Your task to perform on an android device: What is the recent news? Image 0: 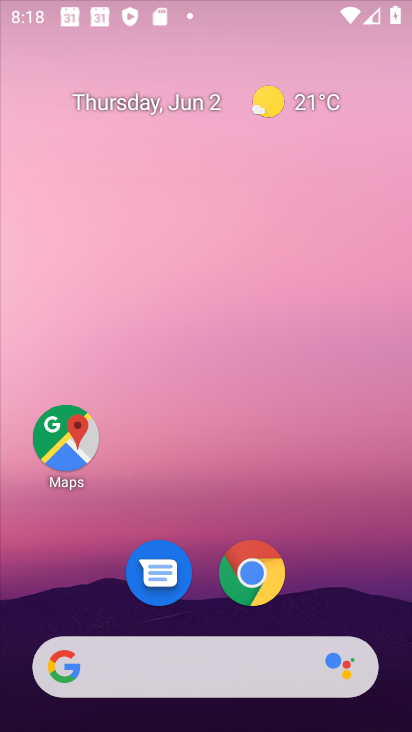
Step 0: drag from (320, 574) to (309, 17)
Your task to perform on an android device: What is the recent news? Image 1: 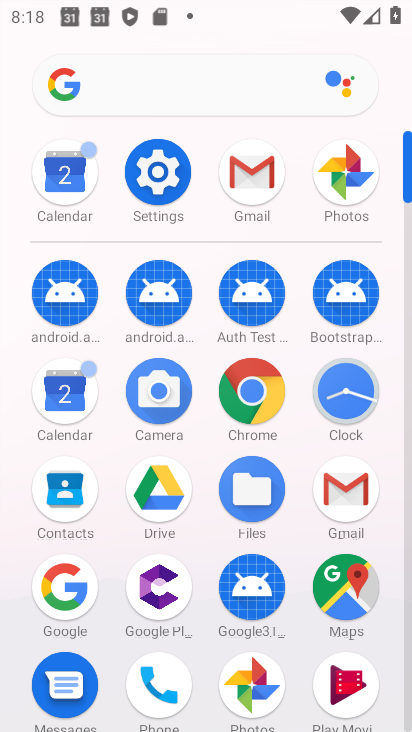
Step 1: click (52, 587)
Your task to perform on an android device: What is the recent news? Image 2: 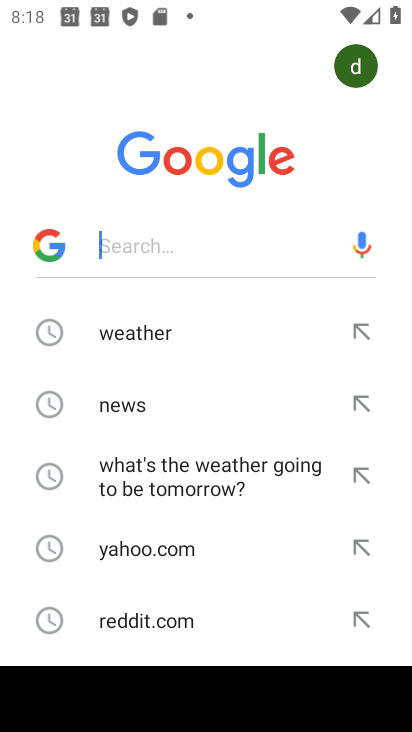
Step 2: drag from (184, 588) to (191, 294)
Your task to perform on an android device: What is the recent news? Image 3: 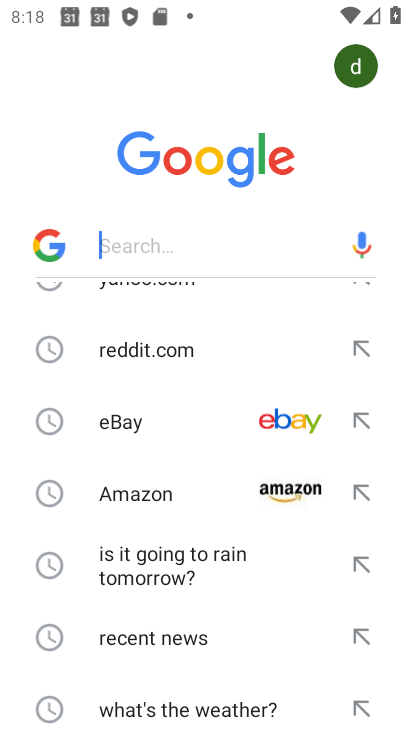
Step 3: click (165, 640)
Your task to perform on an android device: What is the recent news? Image 4: 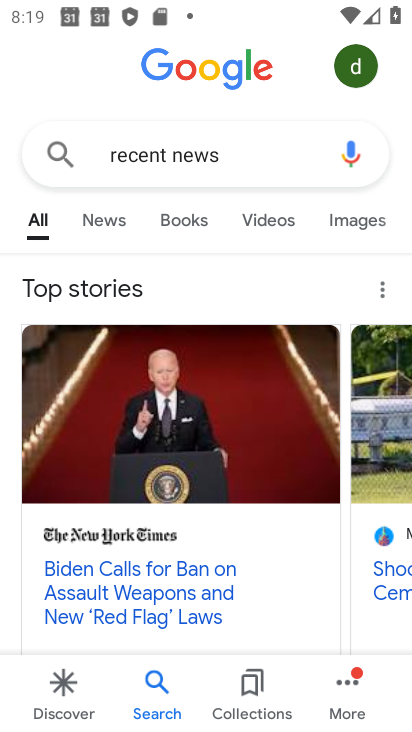
Step 4: task complete